Your task to perform on an android device: Do I have any events this weekend? Image 0: 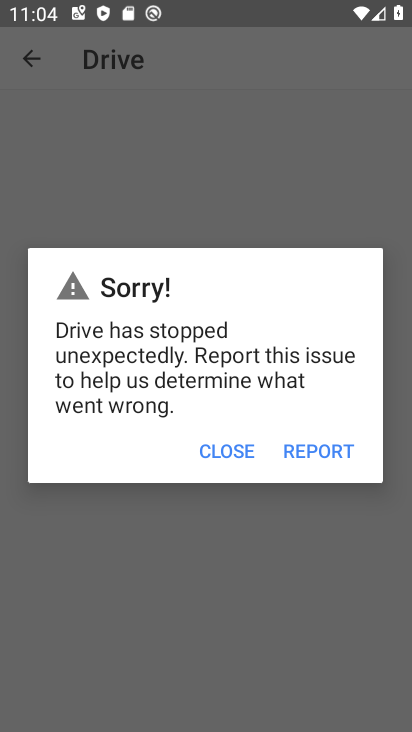
Step 0: press home button
Your task to perform on an android device: Do I have any events this weekend? Image 1: 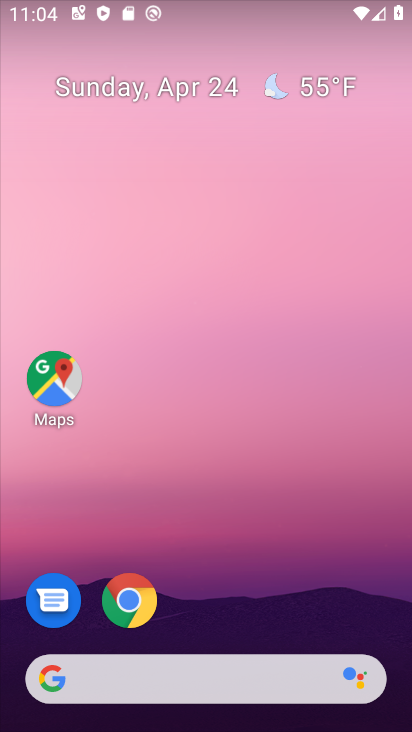
Step 1: click (168, 100)
Your task to perform on an android device: Do I have any events this weekend? Image 2: 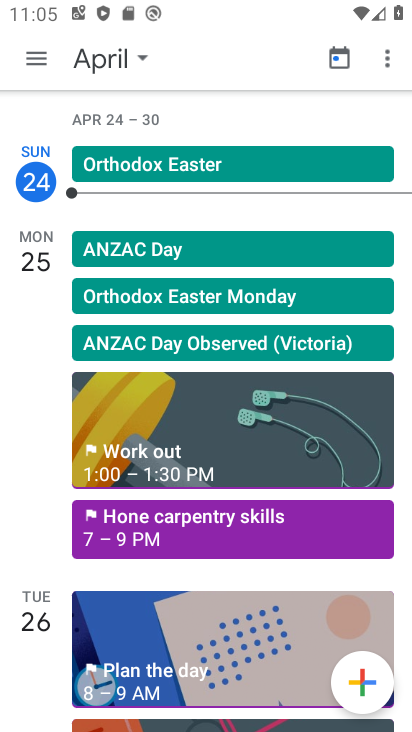
Step 2: click (122, 60)
Your task to perform on an android device: Do I have any events this weekend? Image 3: 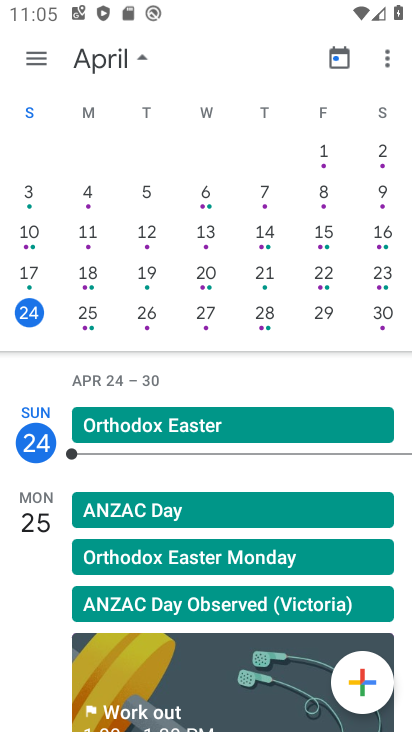
Step 3: click (376, 314)
Your task to perform on an android device: Do I have any events this weekend? Image 4: 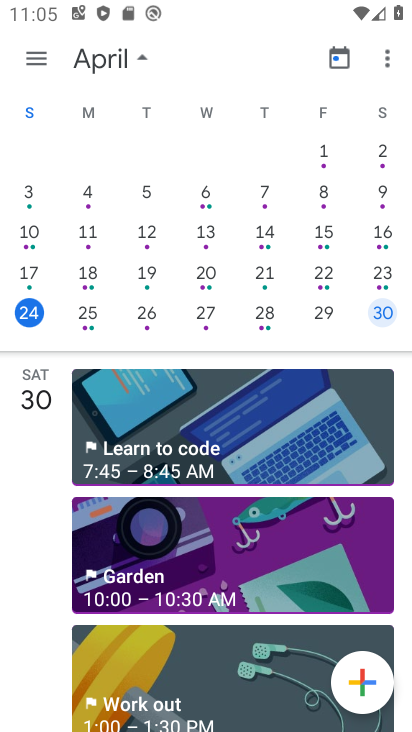
Step 4: task complete